Your task to perform on an android device: Go to Wikipedia Image 0: 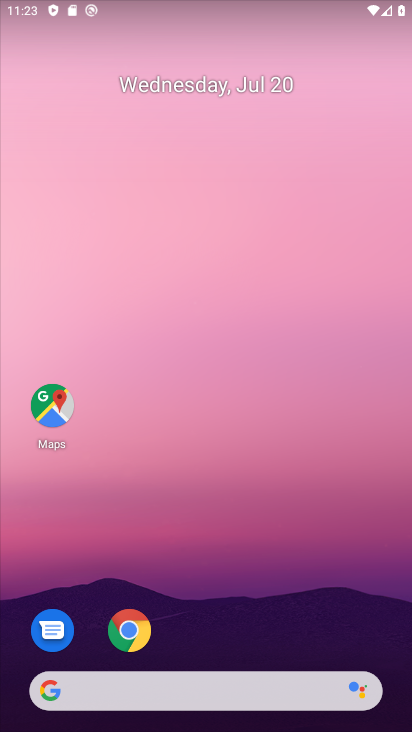
Step 0: click (121, 693)
Your task to perform on an android device: Go to Wikipedia Image 1: 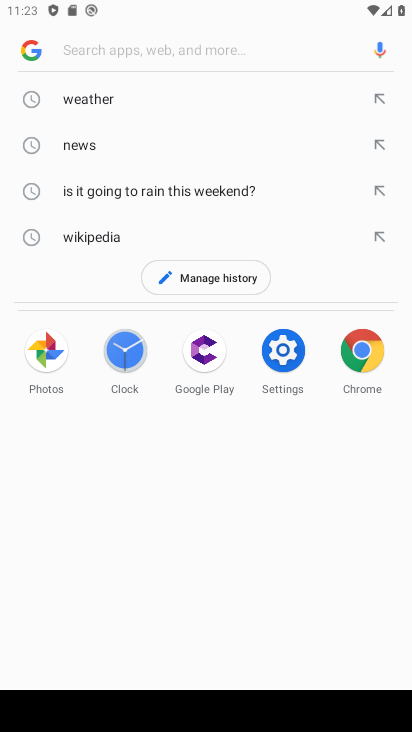
Step 1: click (63, 235)
Your task to perform on an android device: Go to Wikipedia Image 2: 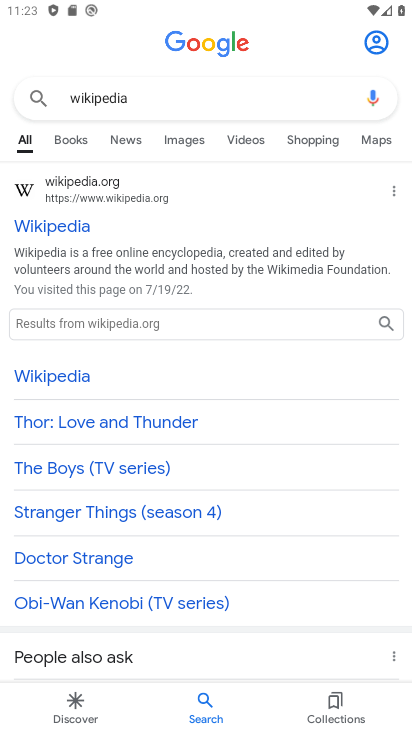
Step 2: task complete